Your task to perform on an android device: empty trash in the gmail app Image 0: 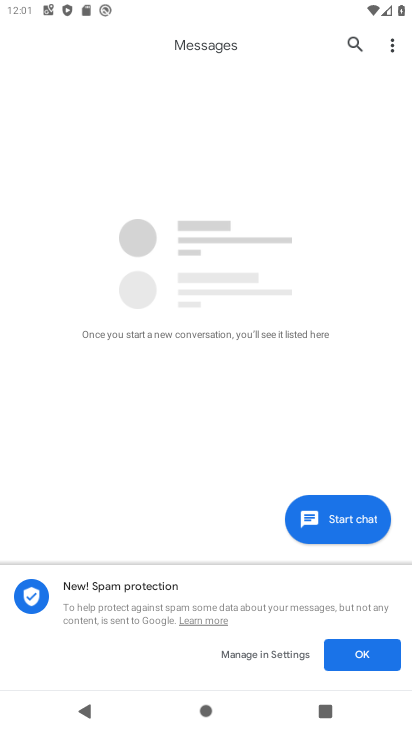
Step 0: click (131, 602)
Your task to perform on an android device: empty trash in the gmail app Image 1: 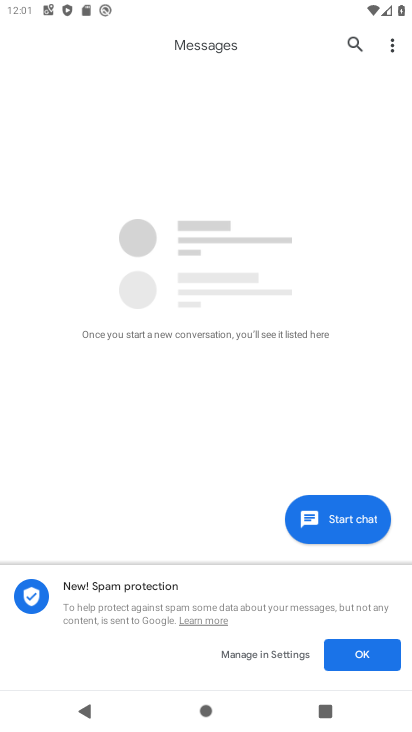
Step 1: press back button
Your task to perform on an android device: empty trash in the gmail app Image 2: 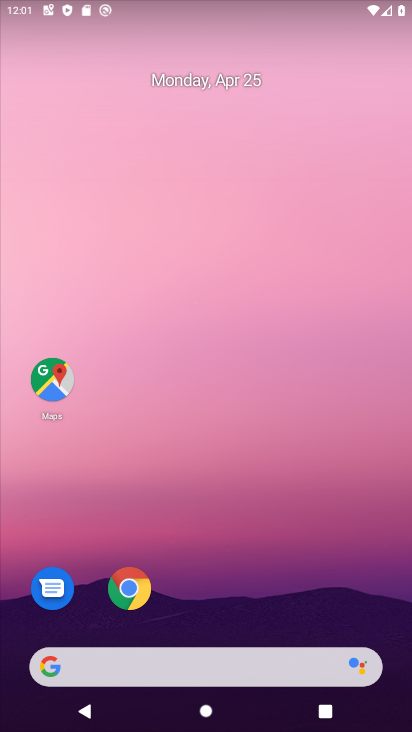
Step 2: drag from (186, 643) to (222, 176)
Your task to perform on an android device: empty trash in the gmail app Image 3: 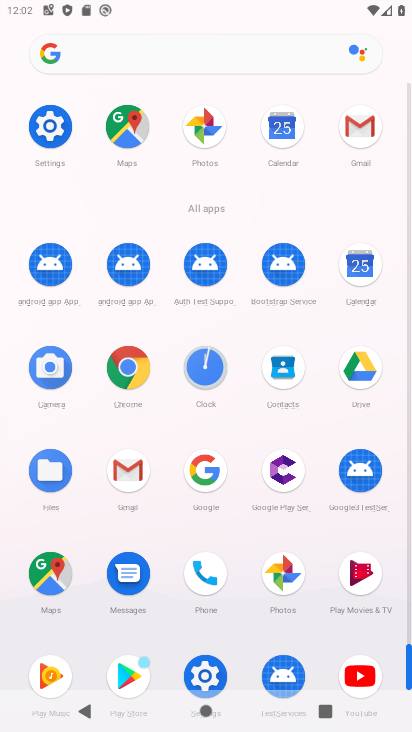
Step 3: click (108, 474)
Your task to perform on an android device: empty trash in the gmail app Image 4: 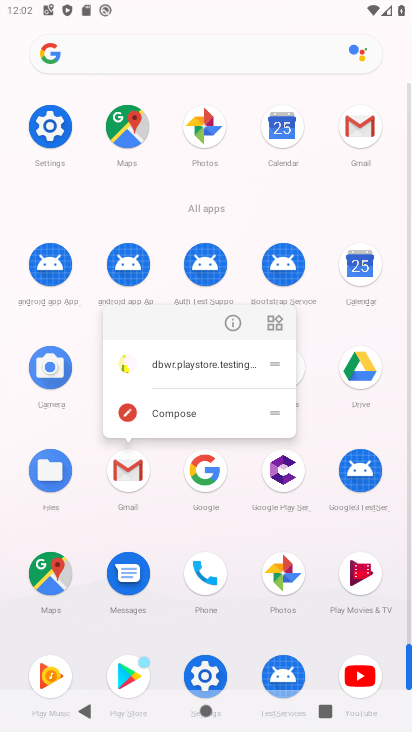
Step 4: click (118, 481)
Your task to perform on an android device: empty trash in the gmail app Image 5: 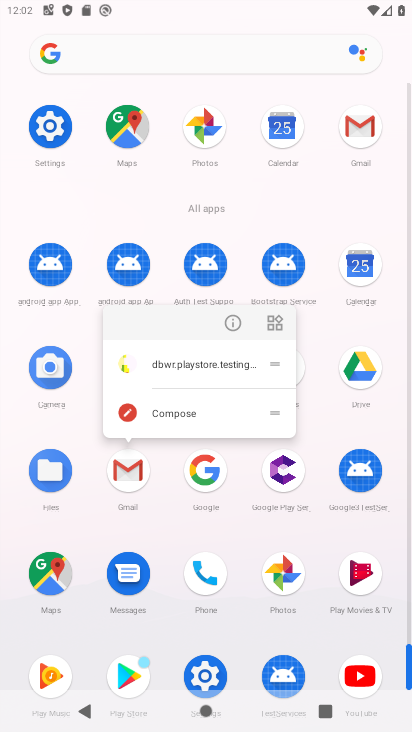
Step 5: click (129, 480)
Your task to perform on an android device: empty trash in the gmail app Image 6: 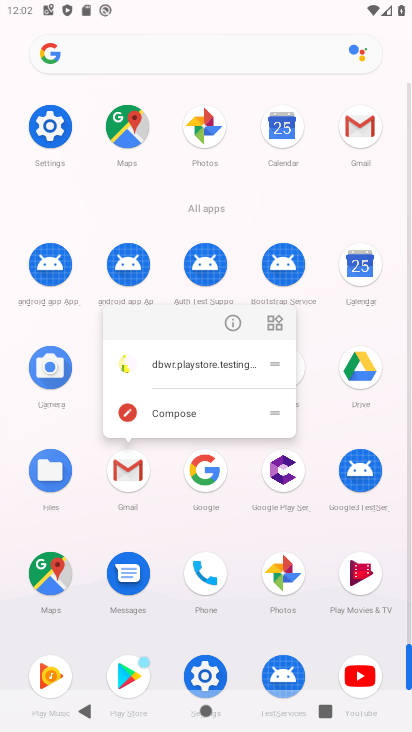
Step 6: click (127, 477)
Your task to perform on an android device: empty trash in the gmail app Image 7: 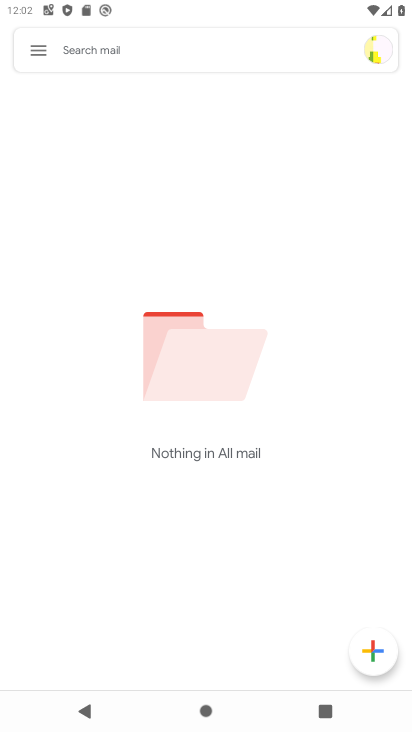
Step 7: click (29, 54)
Your task to perform on an android device: empty trash in the gmail app Image 8: 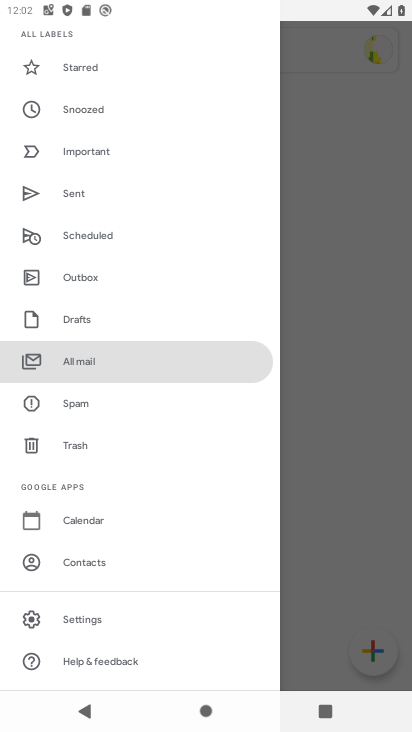
Step 8: click (100, 450)
Your task to perform on an android device: empty trash in the gmail app Image 9: 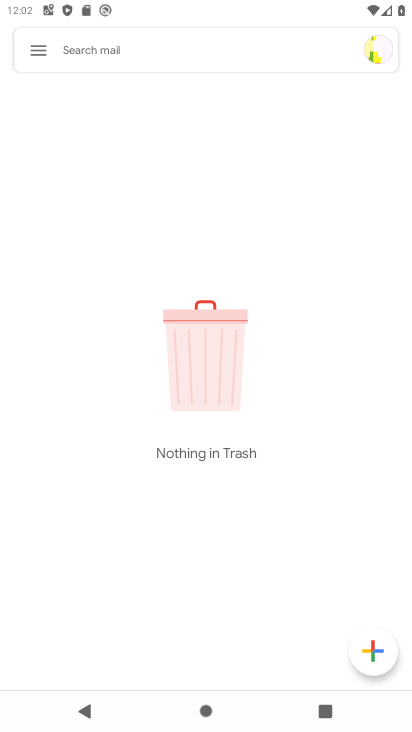
Step 9: task complete